Your task to perform on an android device: Go to settings Image 0: 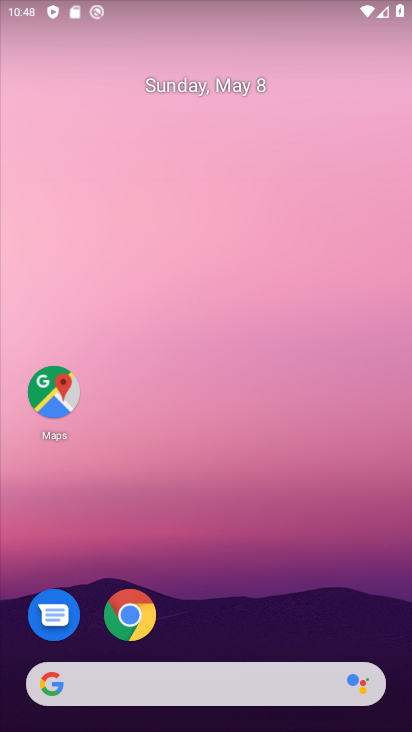
Step 0: drag from (284, 624) to (283, 68)
Your task to perform on an android device: Go to settings Image 1: 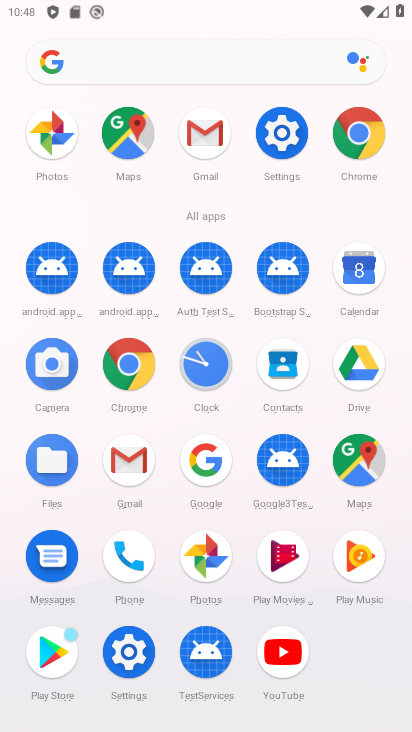
Step 1: click (268, 142)
Your task to perform on an android device: Go to settings Image 2: 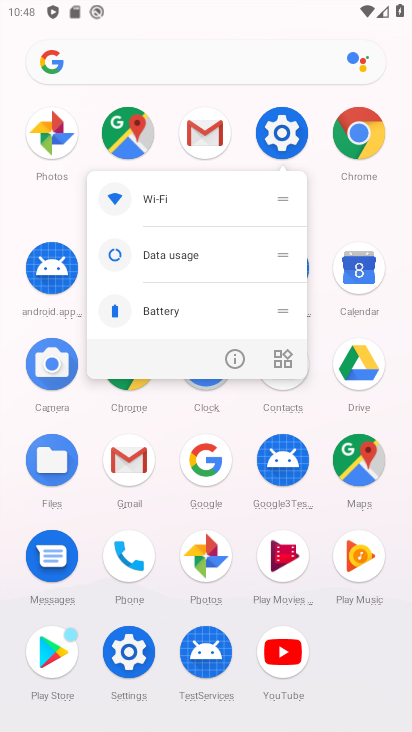
Step 2: click (281, 135)
Your task to perform on an android device: Go to settings Image 3: 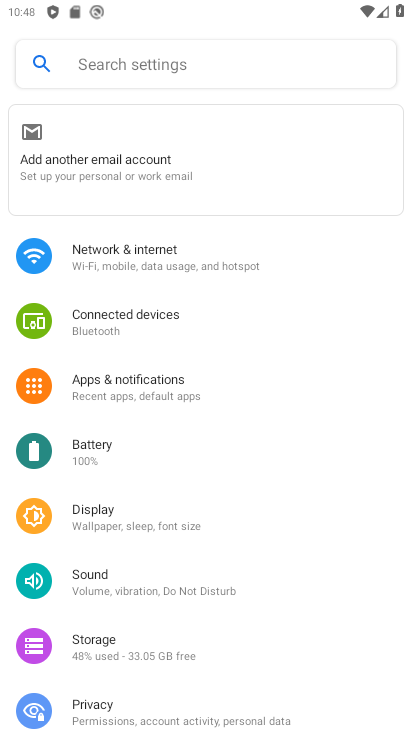
Step 3: task complete